Your task to perform on an android device: Open Google Chrome and click the shortcut for Amazon.com Image 0: 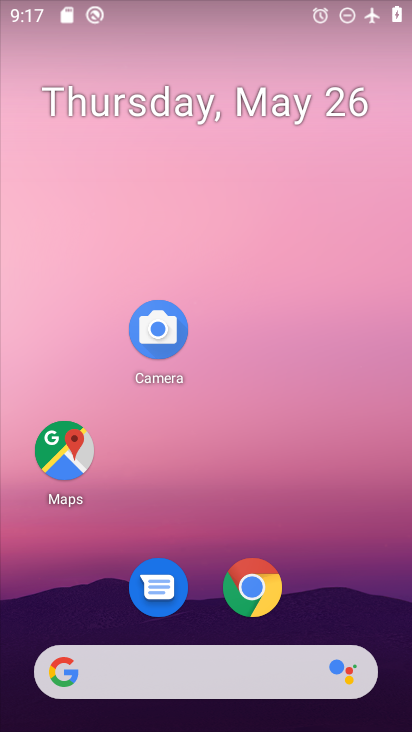
Step 0: click (264, 588)
Your task to perform on an android device: Open Google Chrome and click the shortcut for Amazon.com Image 1: 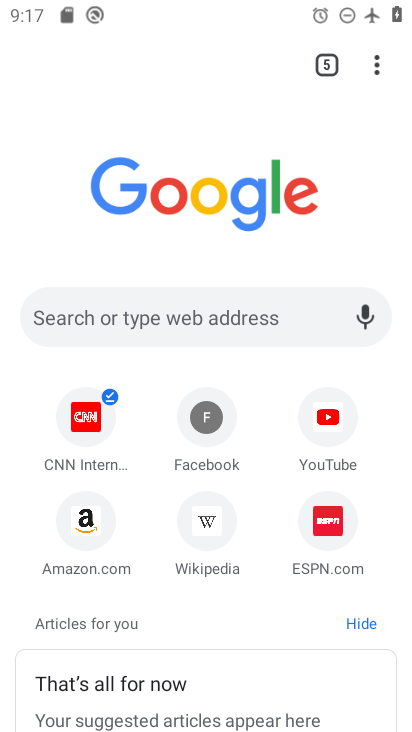
Step 1: click (104, 524)
Your task to perform on an android device: Open Google Chrome and click the shortcut for Amazon.com Image 2: 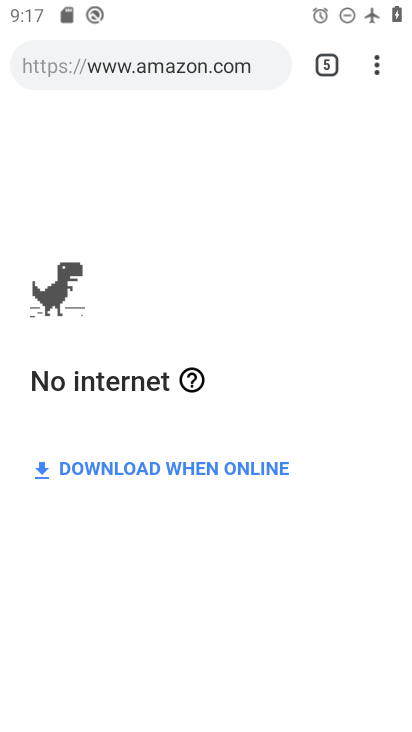
Step 2: task complete